Your task to perform on an android device: toggle wifi Image 0: 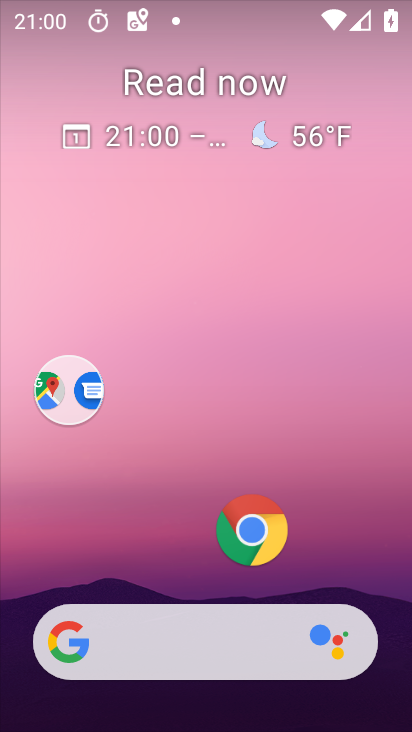
Step 0: drag from (183, 543) to (177, 46)
Your task to perform on an android device: toggle wifi Image 1: 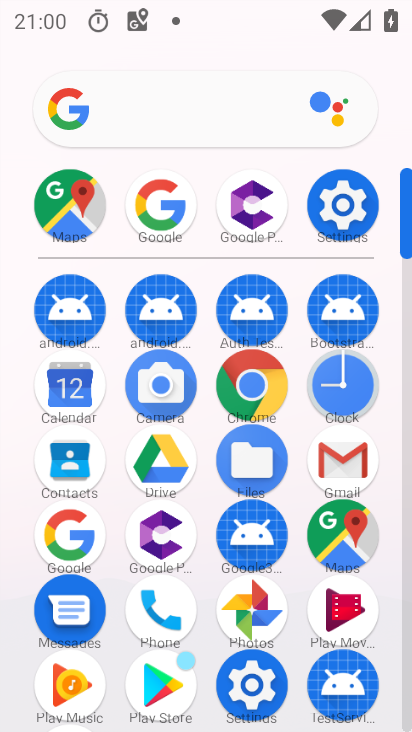
Step 1: click (344, 206)
Your task to perform on an android device: toggle wifi Image 2: 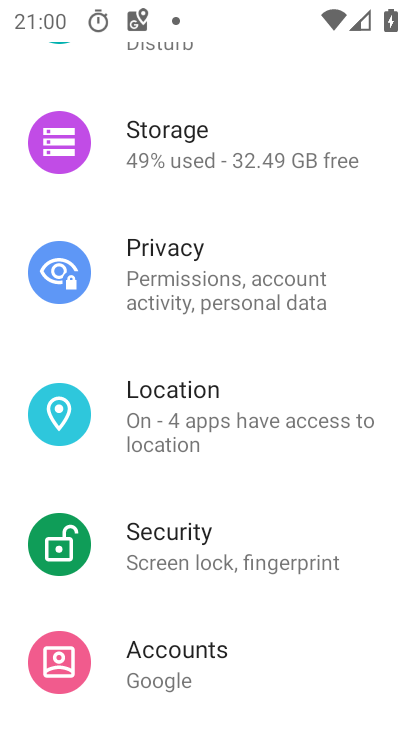
Step 2: drag from (181, 134) to (318, 731)
Your task to perform on an android device: toggle wifi Image 3: 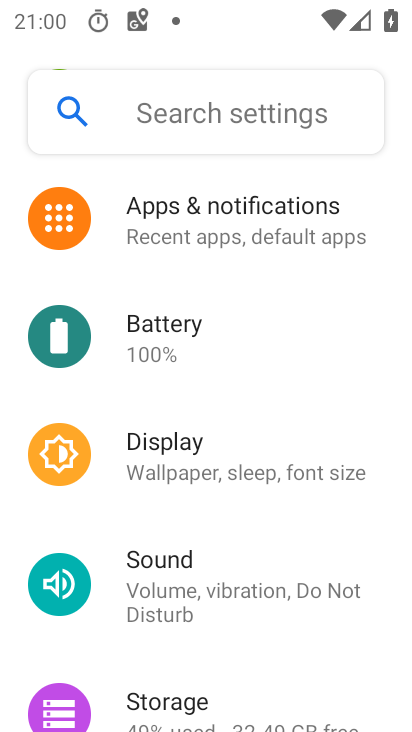
Step 3: drag from (172, 279) to (337, 727)
Your task to perform on an android device: toggle wifi Image 4: 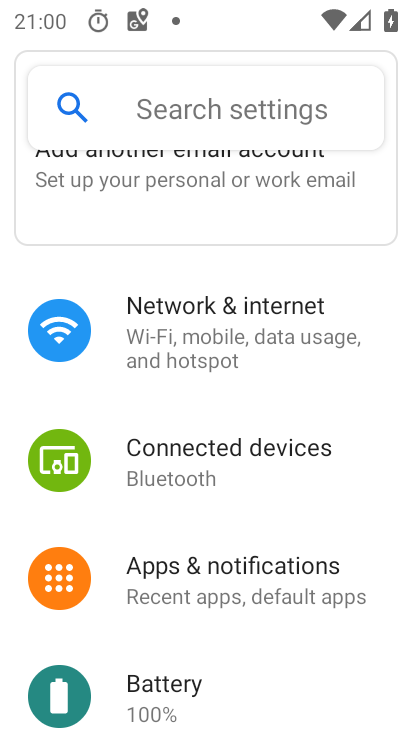
Step 4: click (178, 334)
Your task to perform on an android device: toggle wifi Image 5: 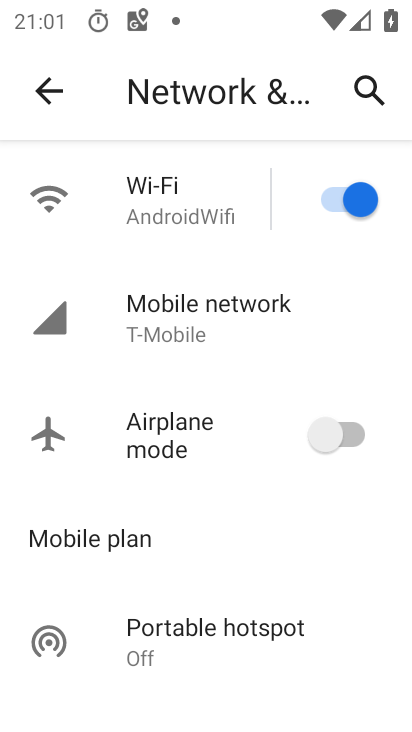
Step 5: click (365, 183)
Your task to perform on an android device: toggle wifi Image 6: 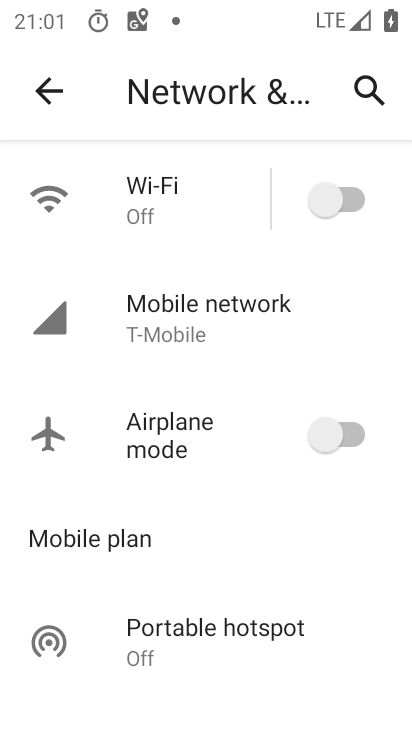
Step 6: click (325, 197)
Your task to perform on an android device: toggle wifi Image 7: 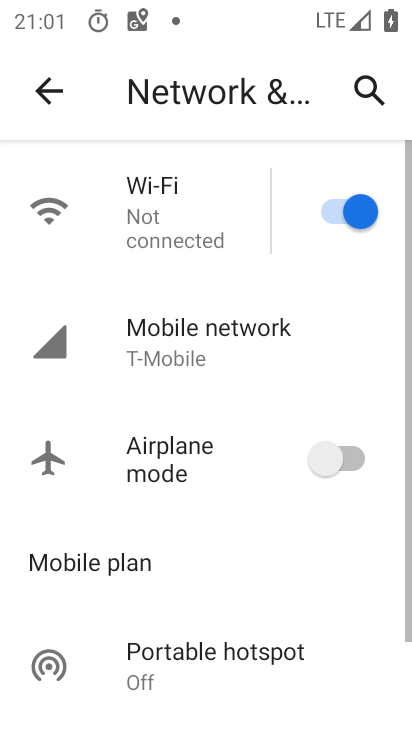
Step 7: task complete